Your task to perform on an android device: toggle sleep mode Image 0: 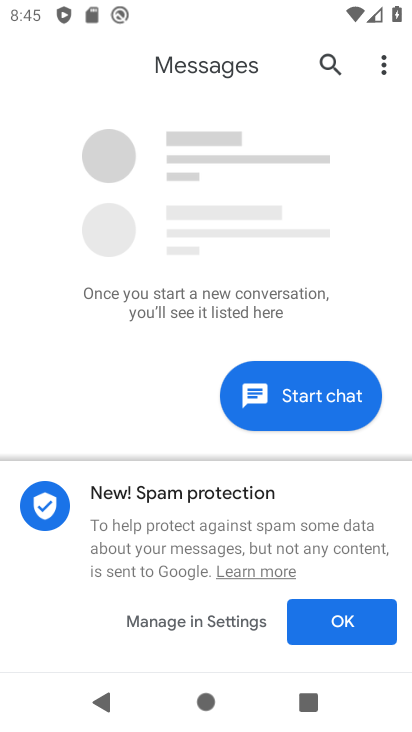
Step 0: press home button
Your task to perform on an android device: toggle sleep mode Image 1: 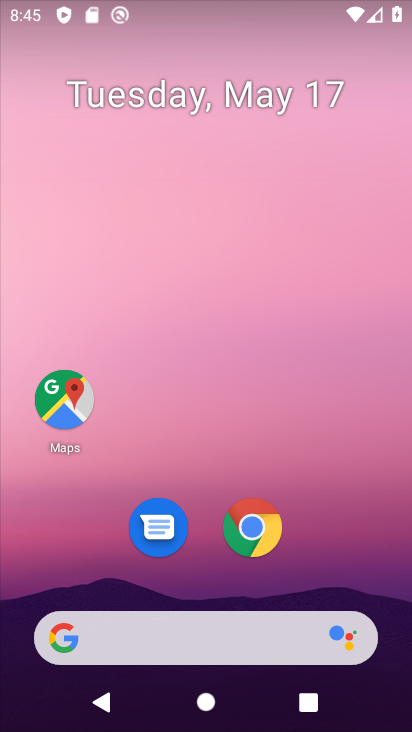
Step 1: drag from (346, 534) to (344, 220)
Your task to perform on an android device: toggle sleep mode Image 2: 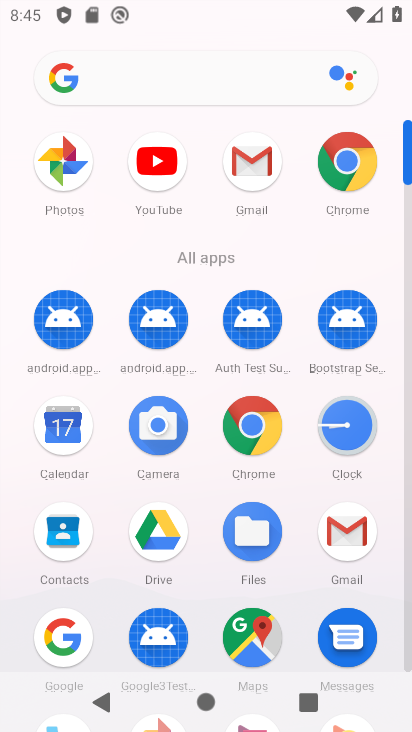
Step 2: click (403, 633)
Your task to perform on an android device: toggle sleep mode Image 3: 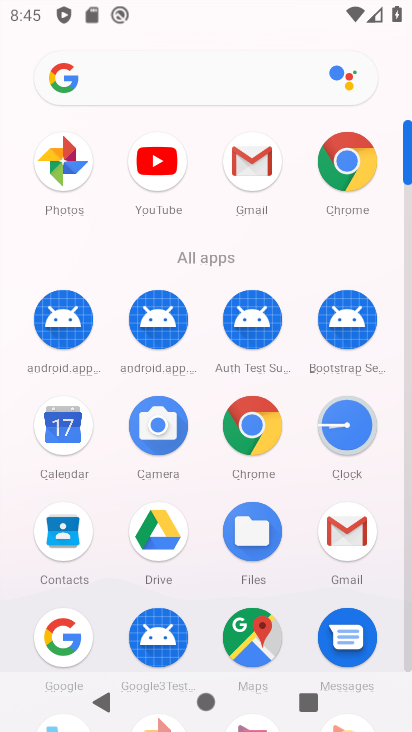
Step 3: click (408, 645)
Your task to perform on an android device: toggle sleep mode Image 4: 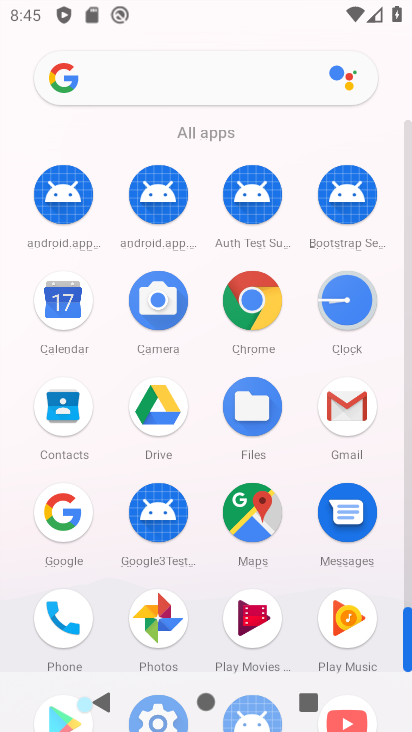
Step 4: click (403, 640)
Your task to perform on an android device: toggle sleep mode Image 5: 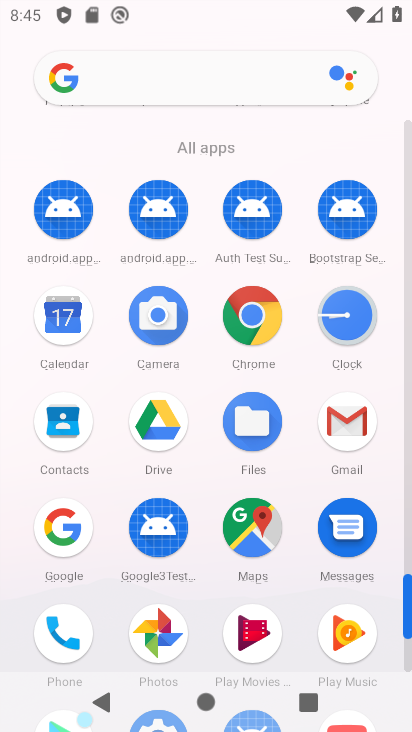
Step 5: drag from (407, 657) to (407, 701)
Your task to perform on an android device: toggle sleep mode Image 6: 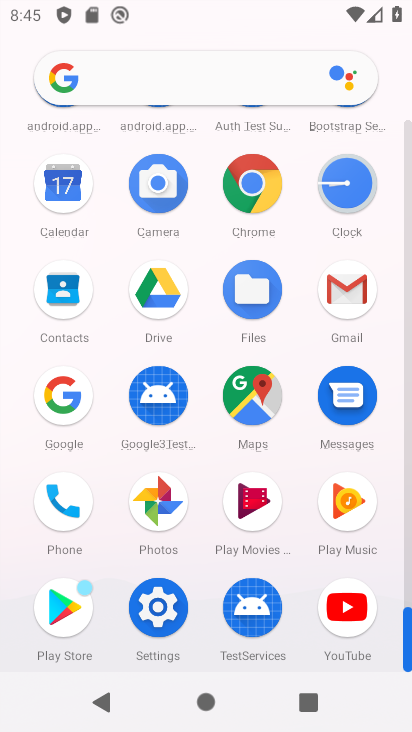
Step 6: click (160, 623)
Your task to perform on an android device: toggle sleep mode Image 7: 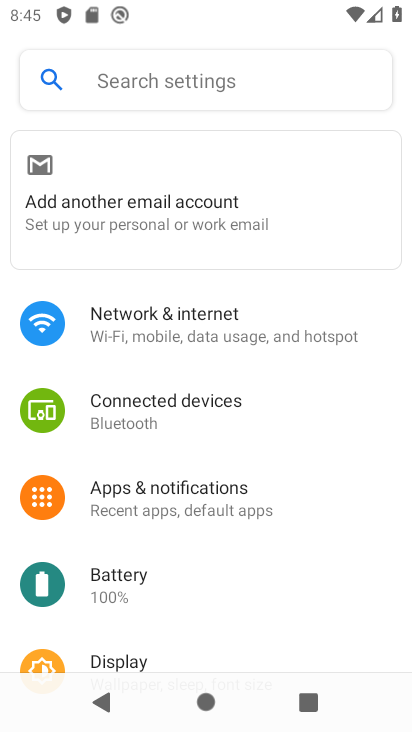
Step 7: drag from (172, 556) to (177, 397)
Your task to perform on an android device: toggle sleep mode Image 8: 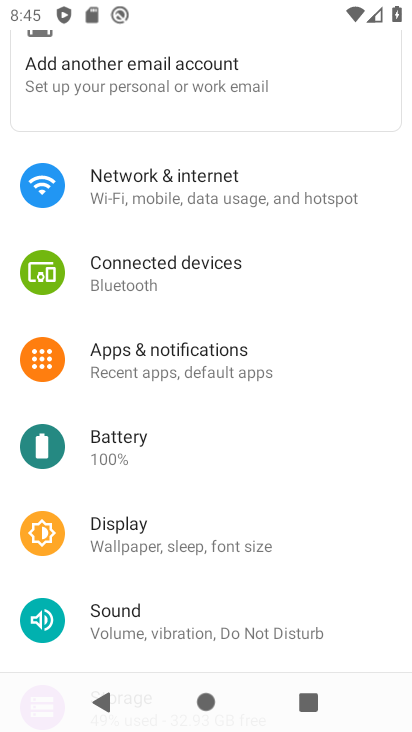
Step 8: click (142, 614)
Your task to perform on an android device: toggle sleep mode Image 9: 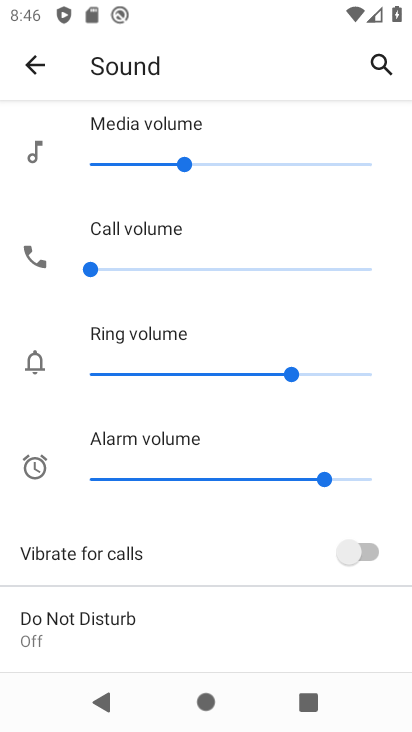
Step 9: click (25, 45)
Your task to perform on an android device: toggle sleep mode Image 10: 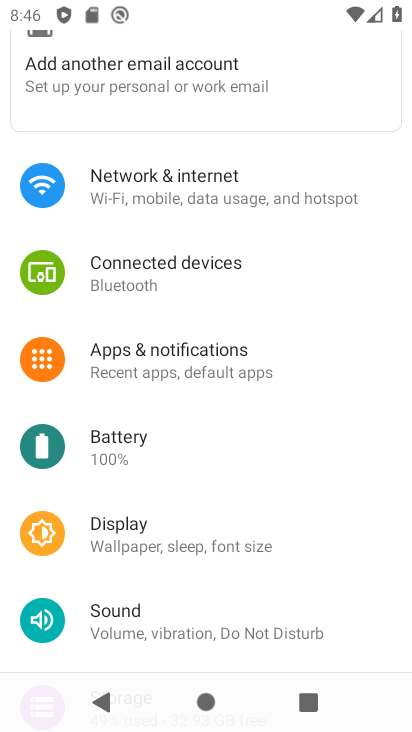
Step 10: click (175, 542)
Your task to perform on an android device: toggle sleep mode Image 11: 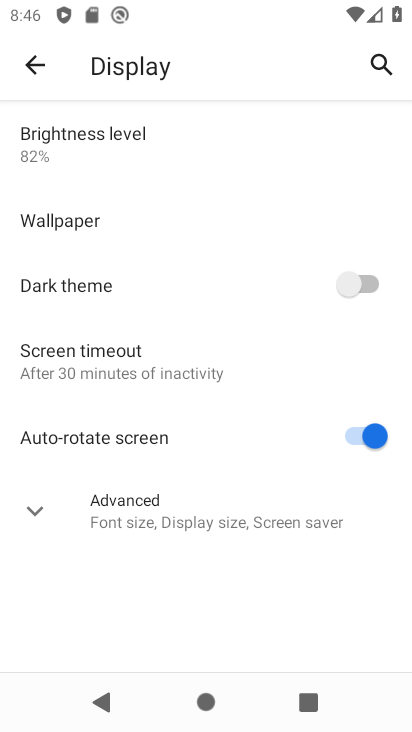
Step 11: click (232, 378)
Your task to perform on an android device: toggle sleep mode Image 12: 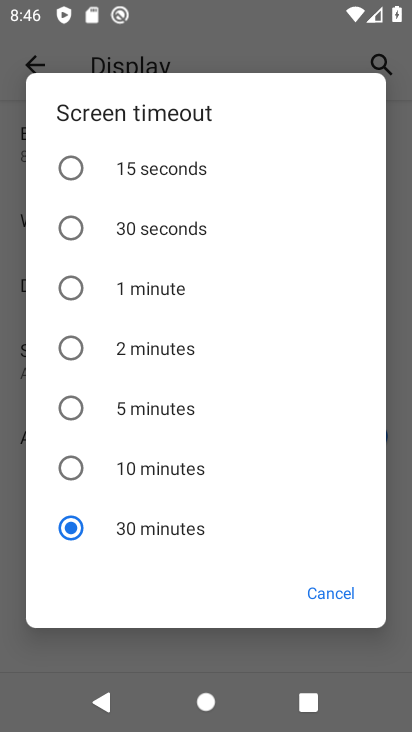
Step 12: click (172, 196)
Your task to perform on an android device: toggle sleep mode Image 13: 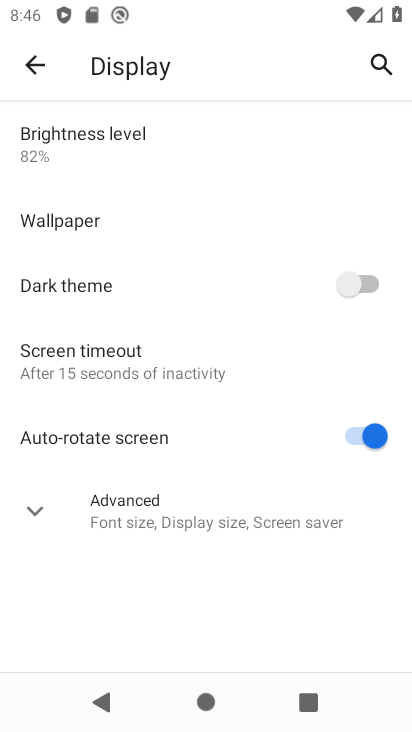
Step 13: task complete